Your task to perform on an android device: see creations saved in the google photos Image 0: 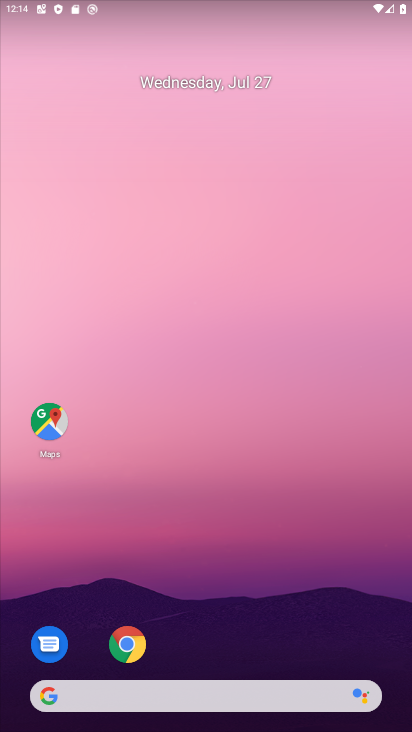
Step 0: drag from (245, 665) to (314, 12)
Your task to perform on an android device: see creations saved in the google photos Image 1: 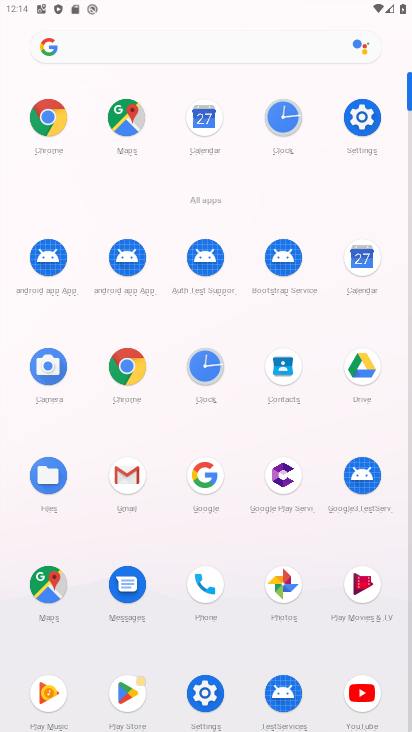
Step 1: click (284, 597)
Your task to perform on an android device: see creations saved in the google photos Image 2: 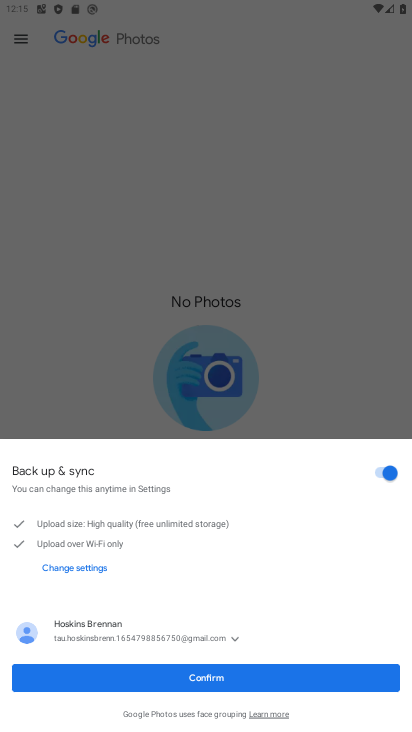
Step 2: click (150, 673)
Your task to perform on an android device: see creations saved in the google photos Image 3: 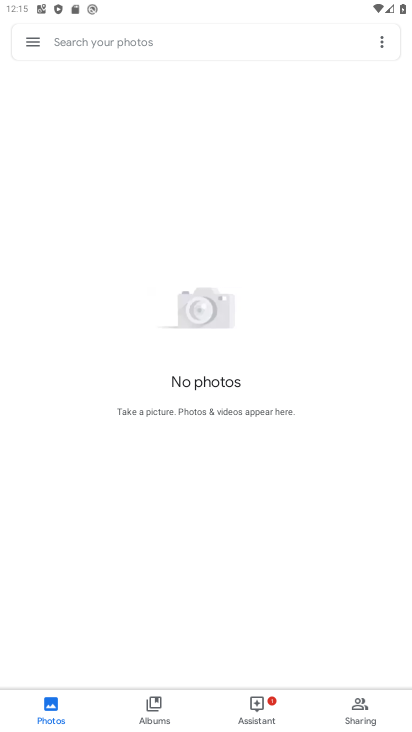
Step 3: click (133, 34)
Your task to perform on an android device: see creations saved in the google photos Image 4: 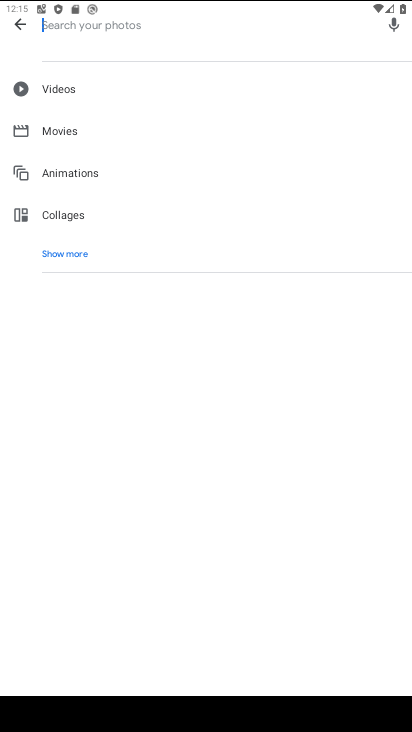
Step 4: click (49, 255)
Your task to perform on an android device: see creations saved in the google photos Image 5: 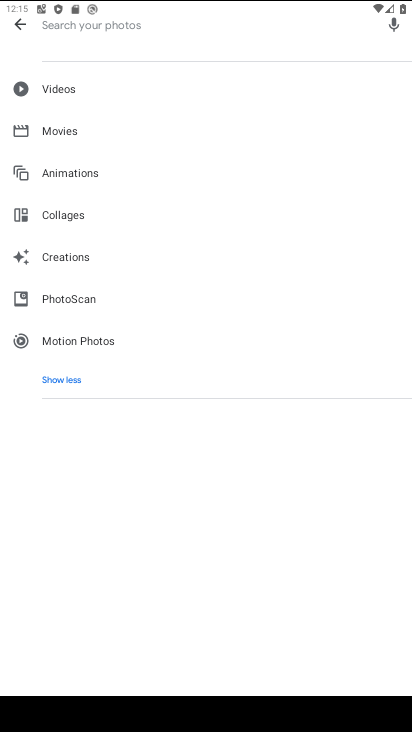
Step 5: click (49, 255)
Your task to perform on an android device: see creations saved in the google photos Image 6: 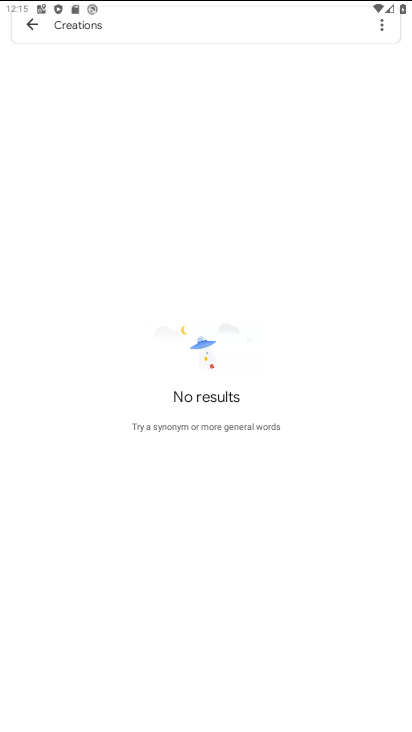
Step 6: task complete